Your task to perform on an android device: Open maps Image 0: 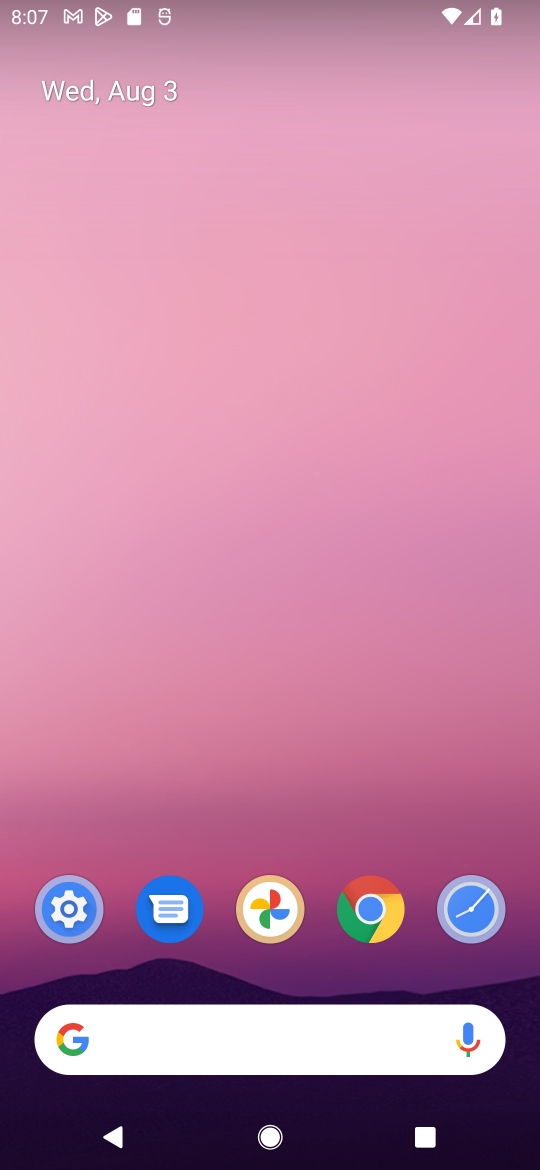
Step 0: press home button
Your task to perform on an android device: Open maps Image 1: 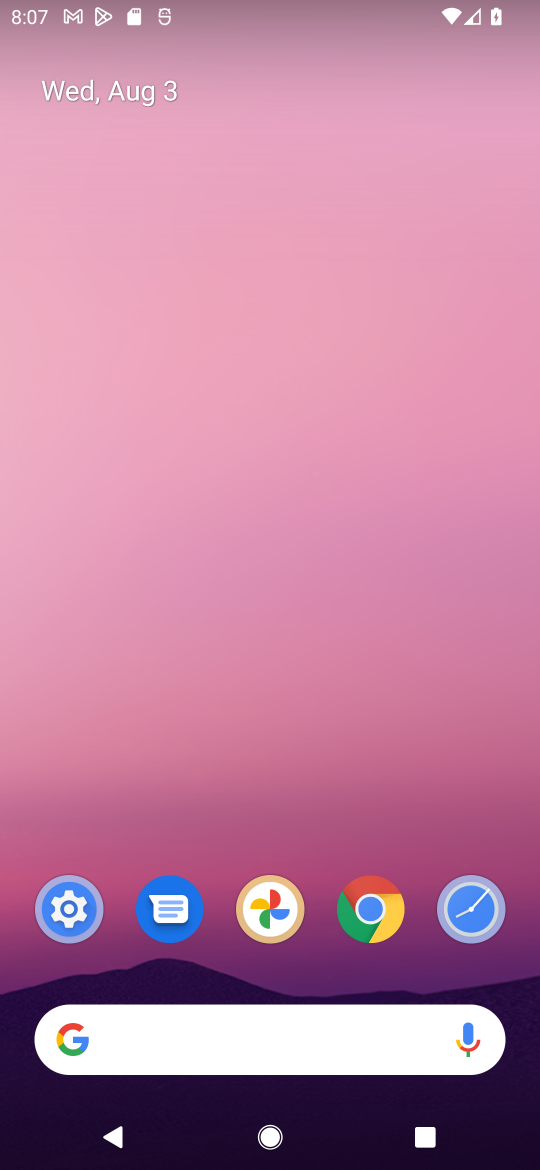
Step 1: drag from (424, 789) to (451, 255)
Your task to perform on an android device: Open maps Image 2: 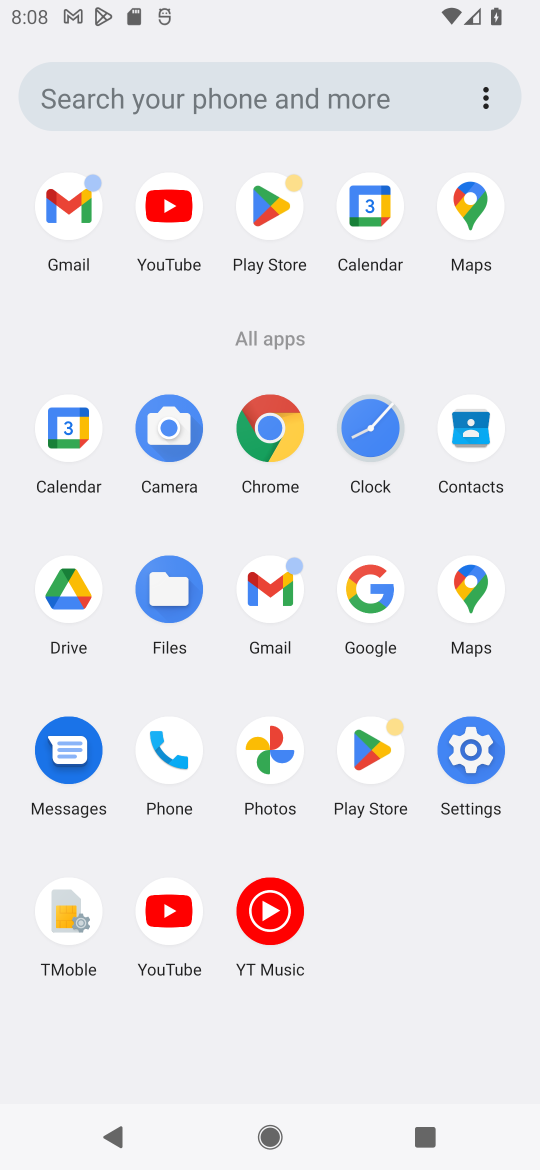
Step 2: click (481, 593)
Your task to perform on an android device: Open maps Image 3: 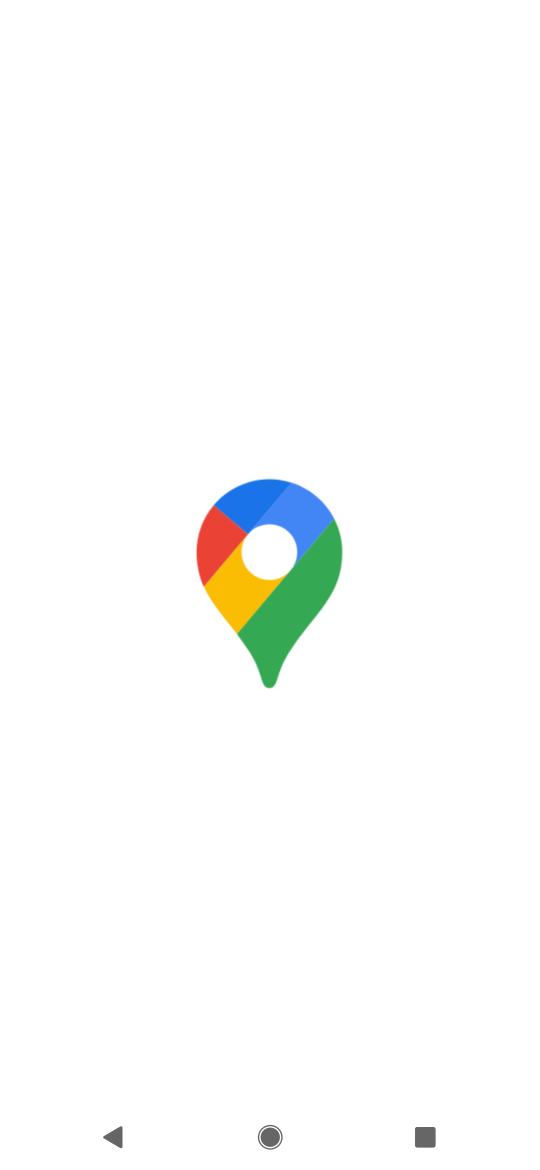
Step 3: task complete